Your task to perform on an android device: change the clock display to show seconds Image 0: 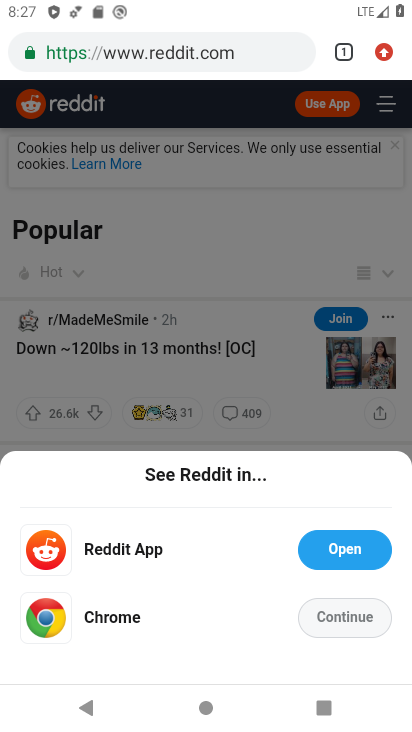
Step 0: press home button
Your task to perform on an android device: change the clock display to show seconds Image 1: 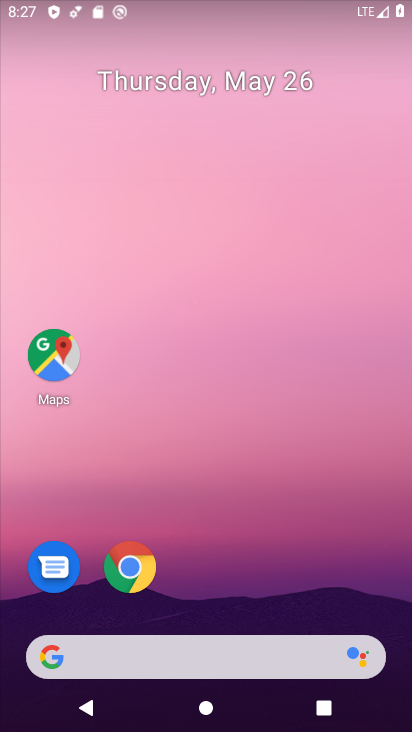
Step 1: drag from (157, 712) to (205, 20)
Your task to perform on an android device: change the clock display to show seconds Image 2: 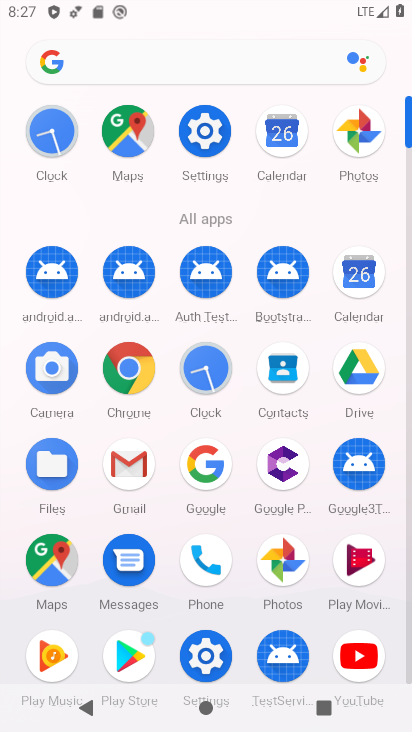
Step 2: click (209, 376)
Your task to perform on an android device: change the clock display to show seconds Image 3: 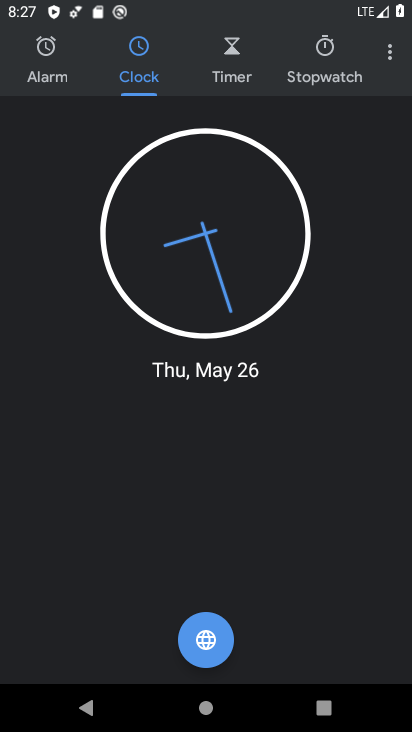
Step 3: click (397, 53)
Your task to perform on an android device: change the clock display to show seconds Image 4: 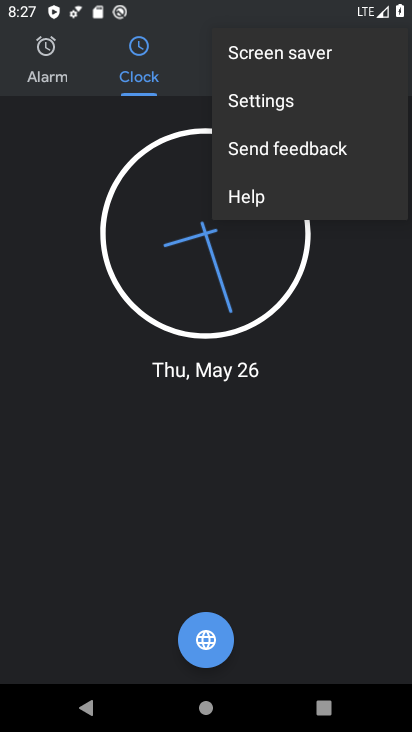
Step 4: click (323, 104)
Your task to perform on an android device: change the clock display to show seconds Image 5: 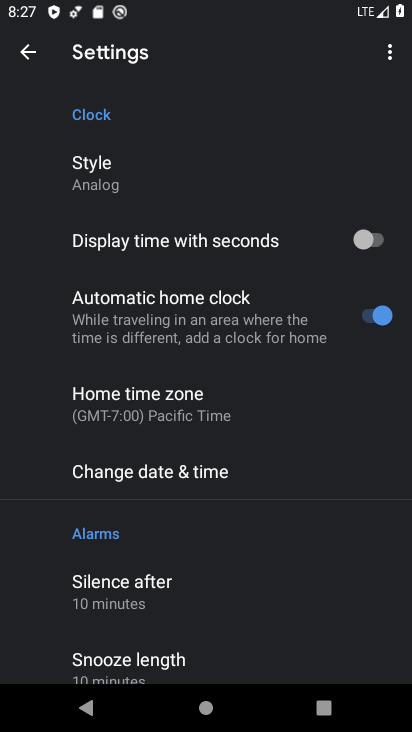
Step 5: click (371, 239)
Your task to perform on an android device: change the clock display to show seconds Image 6: 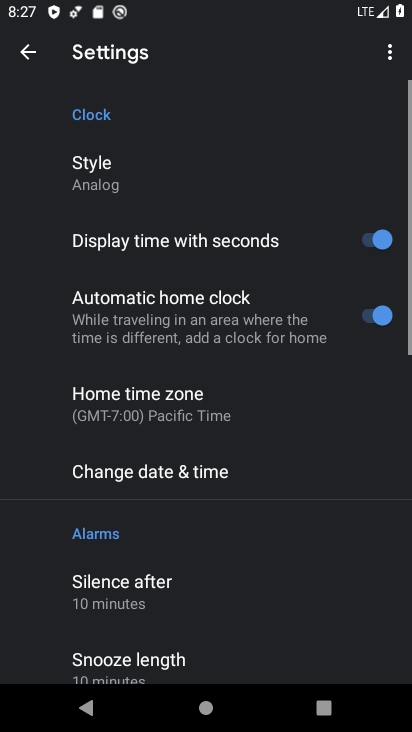
Step 6: task complete